Your task to perform on an android device: change the upload size in google photos Image 0: 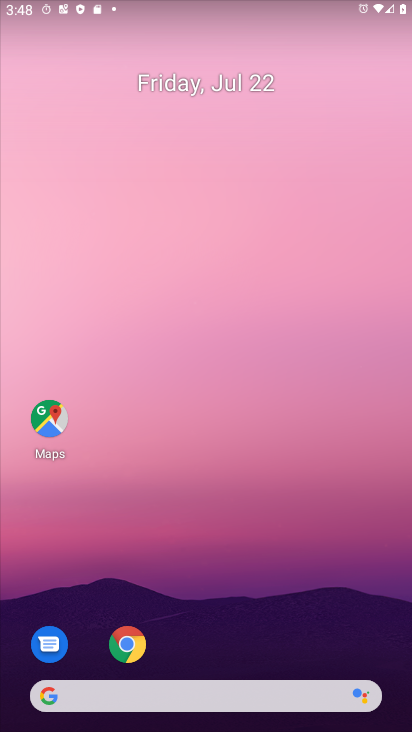
Step 0: press home button
Your task to perform on an android device: change the upload size in google photos Image 1: 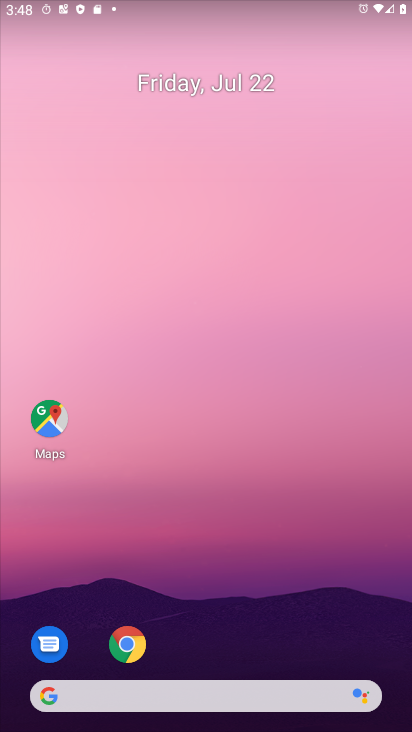
Step 1: drag from (206, 655) to (233, 2)
Your task to perform on an android device: change the upload size in google photos Image 2: 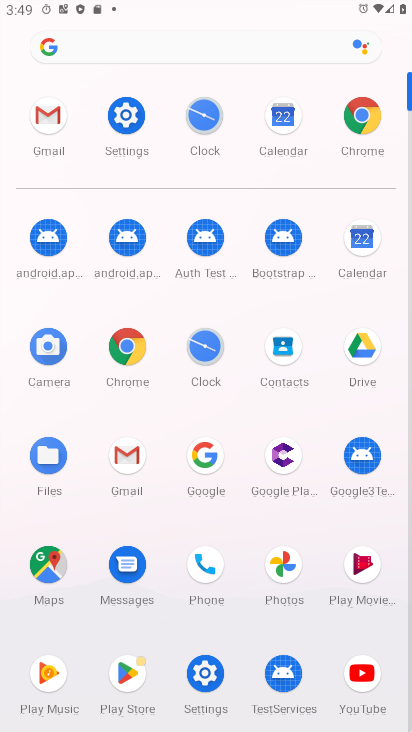
Step 2: click (278, 566)
Your task to perform on an android device: change the upload size in google photos Image 3: 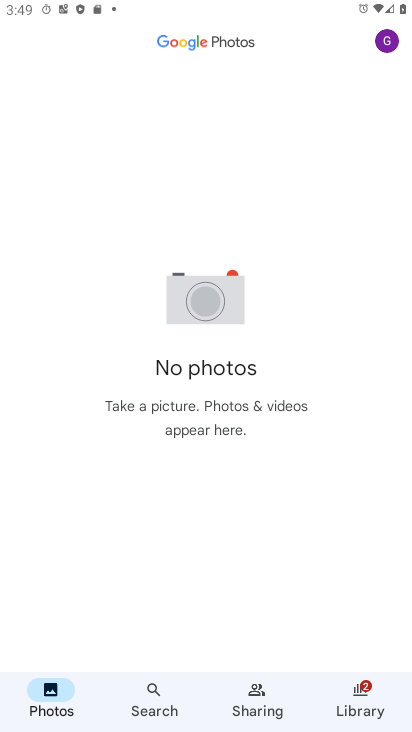
Step 3: click (391, 41)
Your task to perform on an android device: change the upload size in google photos Image 4: 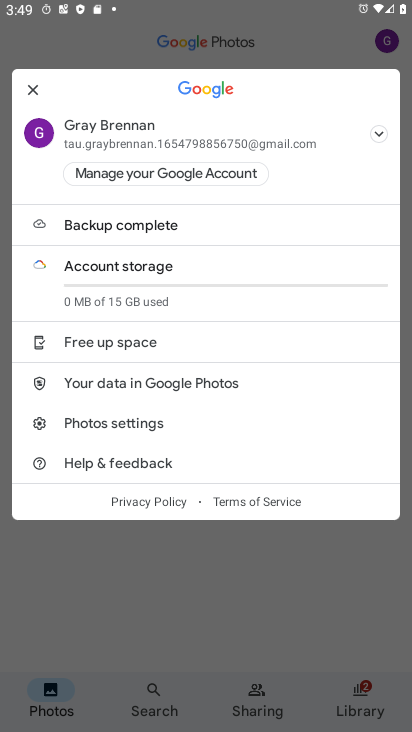
Step 4: click (112, 426)
Your task to perform on an android device: change the upload size in google photos Image 5: 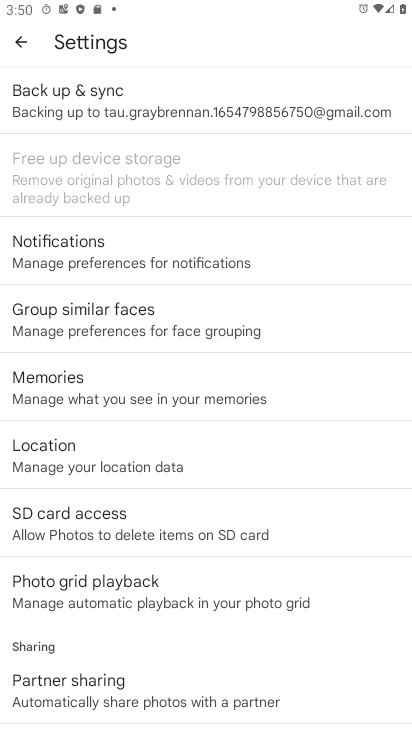
Step 5: click (59, 99)
Your task to perform on an android device: change the upload size in google photos Image 6: 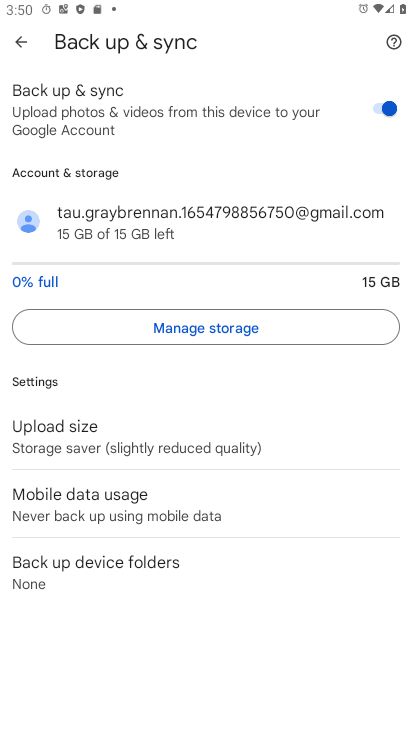
Step 6: click (78, 448)
Your task to perform on an android device: change the upload size in google photos Image 7: 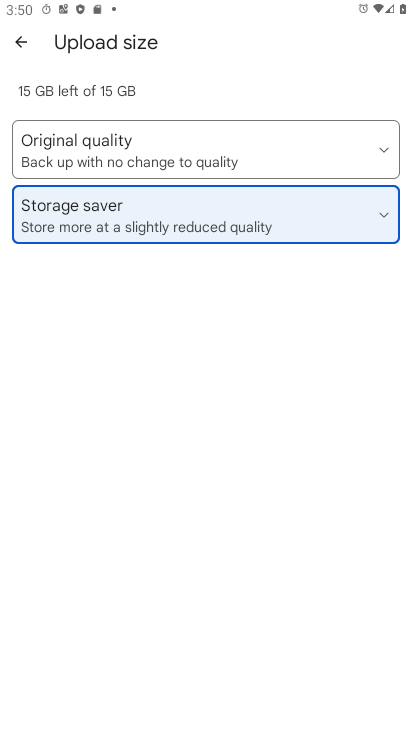
Step 7: click (99, 146)
Your task to perform on an android device: change the upload size in google photos Image 8: 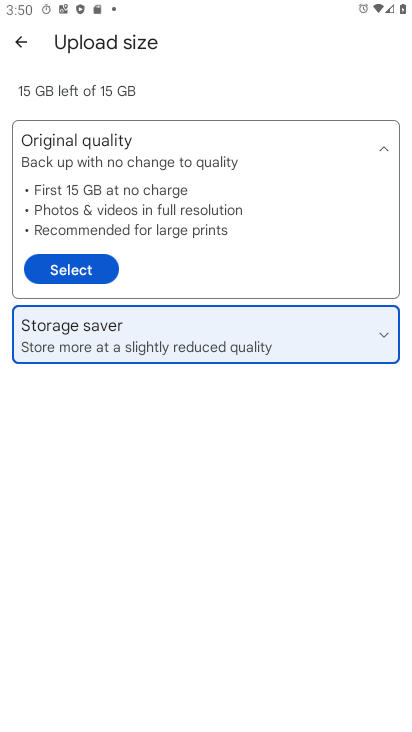
Step 8: click (77, 276)
Your task to perform on an android device: change the upload size in google photos Image 9: 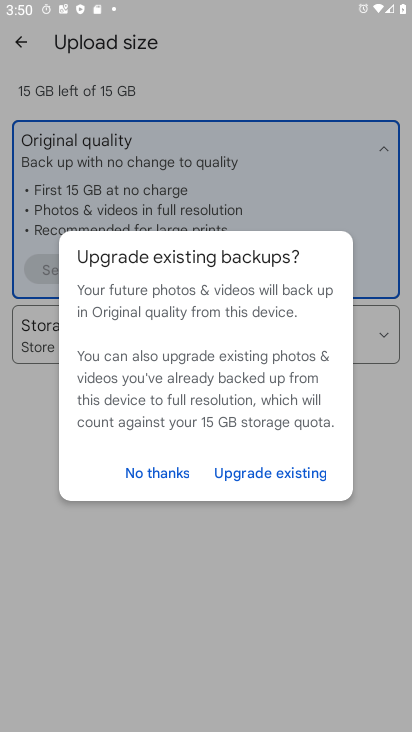
Step 9: click (143, 472)
Your task to perform on an android device: change the upload size in google photos Image 10: 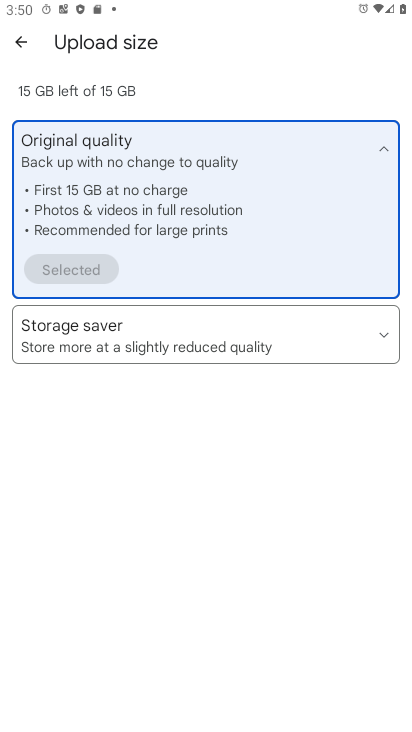
Step 10: task complete